Your task to perform on an android device: delete a single message in the gmail app Image 0: 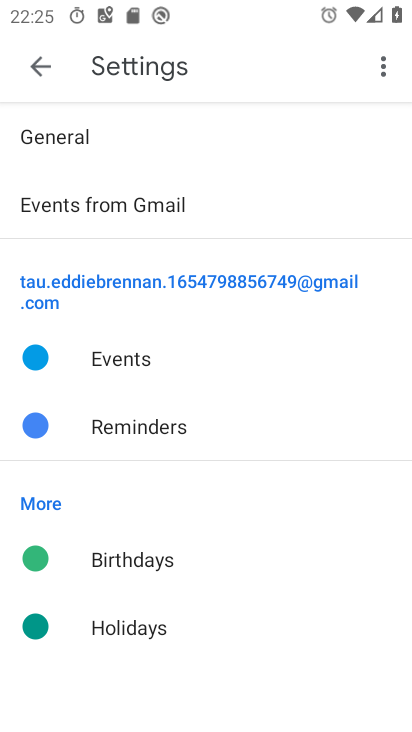
Step 0: press home button
Your task to perform on an android device: delete a single message in the gmail app Image 1: 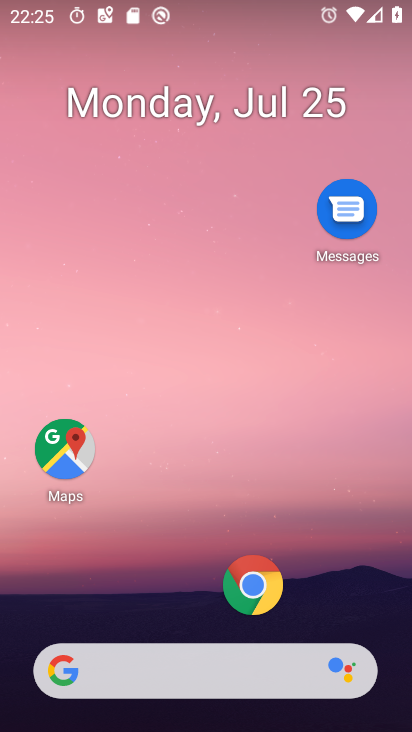
Step 1: drag from (155, 660) to (272, 22)
Your task to perform on an android device: delete a single message in the gmail app Image 2: 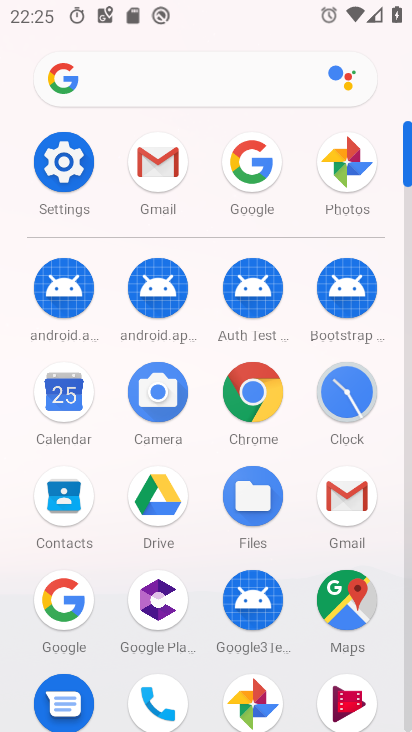
Step 2: click (159, 172)
Your task to perform on an android device: delete a single message in the gmail app Image 3: 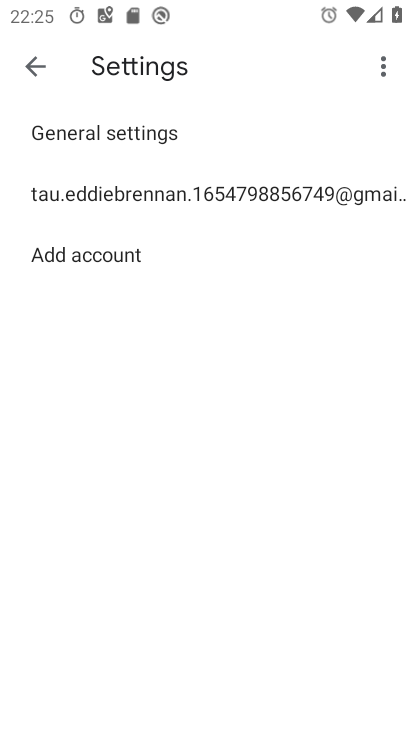
Step 3: click (40, 71)
Your task to perform on an android device: delete a single message in the gmail app Image 4: 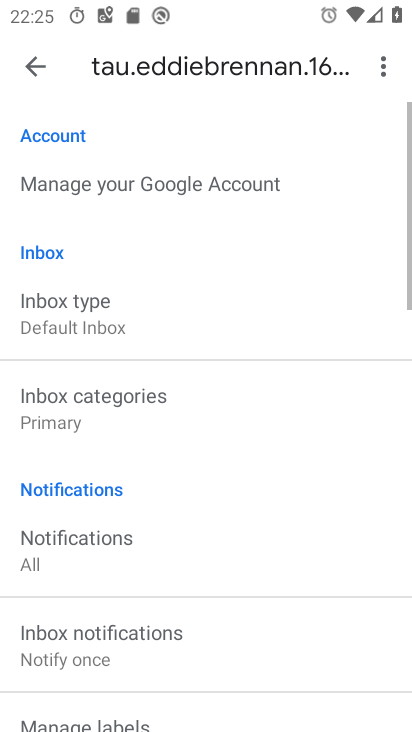
Step 4: click (36, 67)
Your task to perform on an android device: delete a single message in the gmail app Image 5: 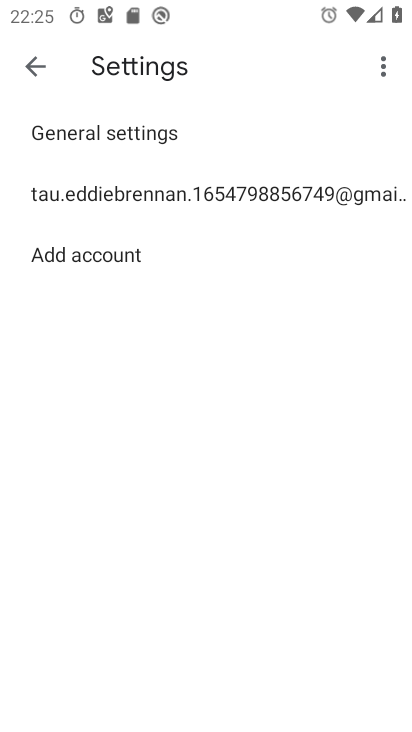
Step 5: click (45, 68)
Your task to perform on an android device: delete a single message in the gmail app Image 6: 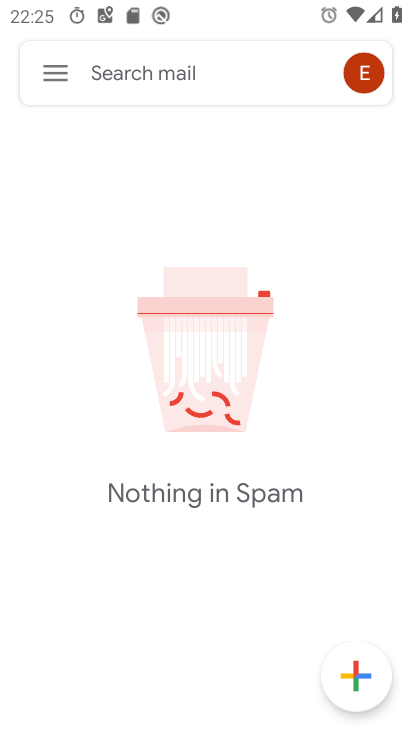
Step 6: click (64, 82)
Your task to perform on an android device: delete a single message in the gmail app Image 7: 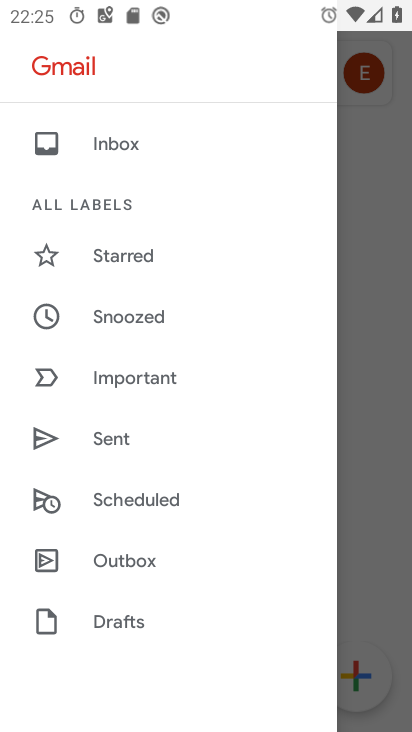
Step 7: drag from (180, 501) to (277, 157)
Your task to perform on an android device: delete a single message in the gmail app Image 8: 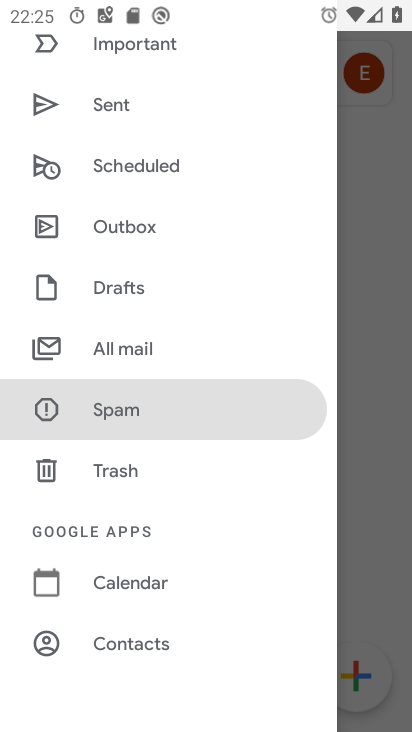
Step 8: click (161, 380)
Your task to perform on an android device: delete a single message in the gmail app Image 9: 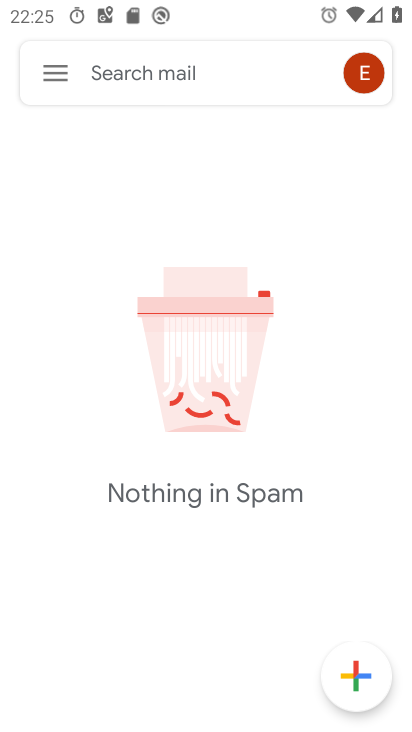
Step 9: click (155, 352)
Your task to perform on an android device: delete a single message in the gmail app Image 10: 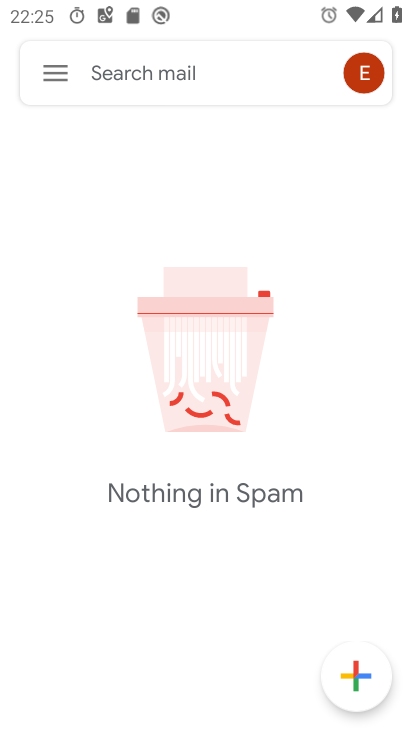
Step 10: click (65, 75)
Your task to perform on an android device: delete a single message in the gmail app Image 11: 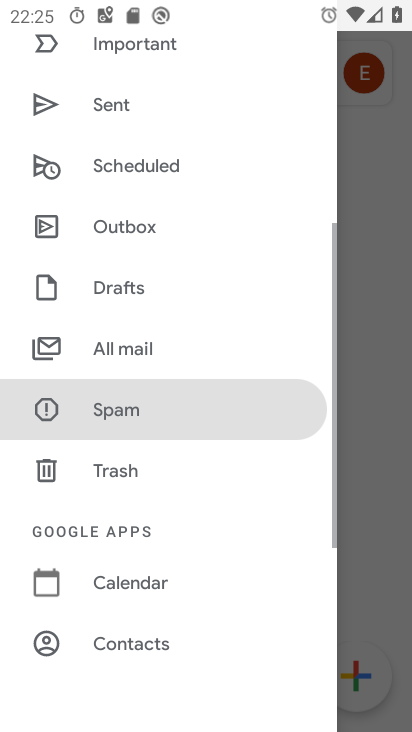
Step 11: click (149, 356)
Your task to perform on an android device: delete a single message in the gmail app Image 12: 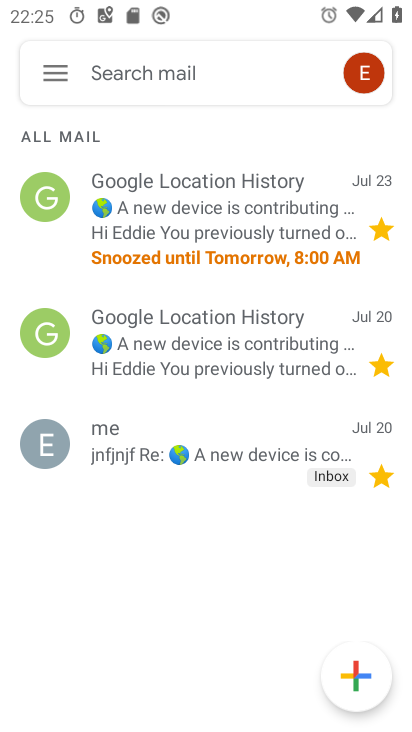
Step 12: click (44, 198)
Your task to perform on an android device: delete a single message in the gmail app Image 13: 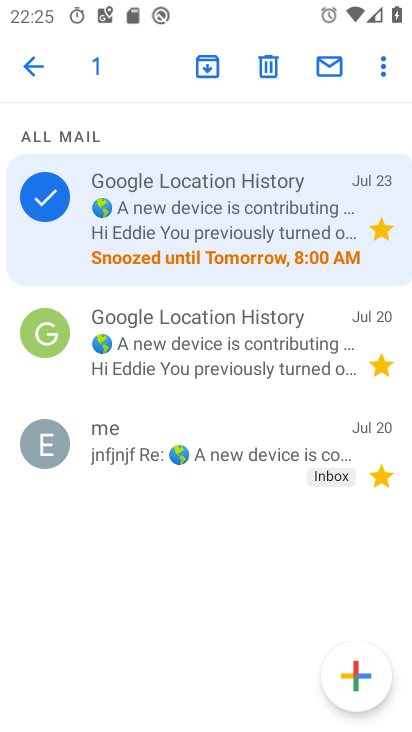
Step 13: click (271, 64)
Your task to perform on an android device: delete a single message in the gmail app Image 14: 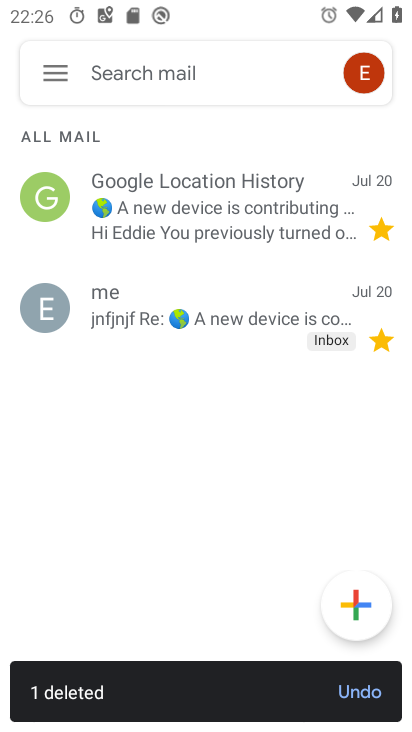
Step 14: task complete